Your task to perform on an android device: Show me the alarms in the clock app Image 0: 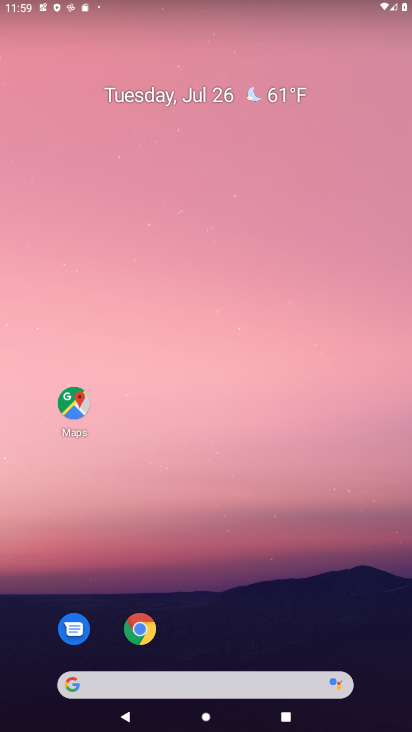
Step 0: drag from (252, 663) to (227, 34)
Your task to perform on an android device: Show me the alarms in the clock app Image 1: 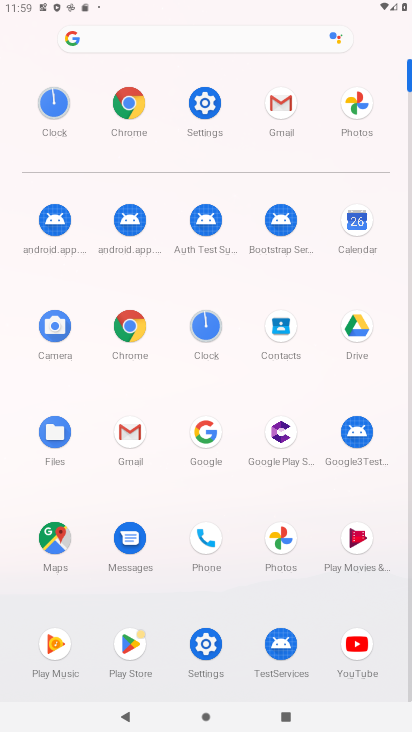
Step 1: click (56, 121)
Your task to perform on an android device: Show me the alarms in the clock app Image 2: 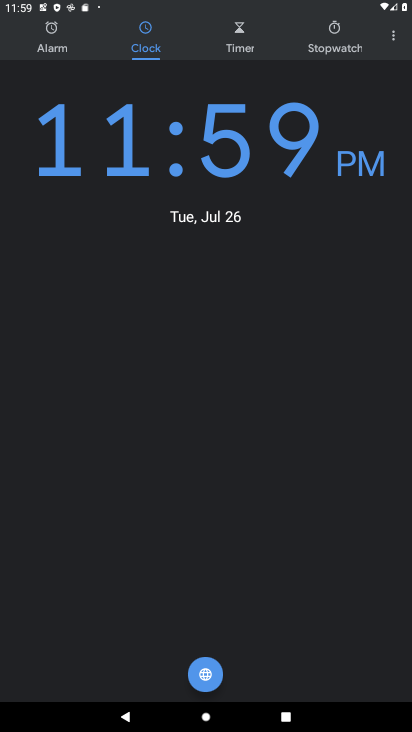
Step 2: click (71, 34)
Your task to perform on an android device: Show me the alarms in the clock app Image 3: 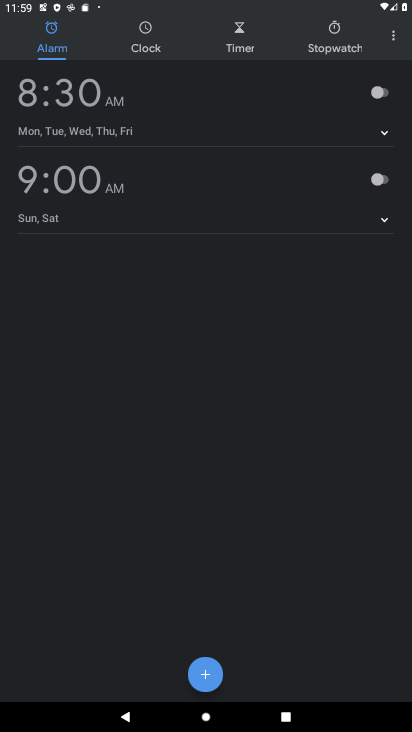
Step 3: click (377, 102)
Your task to perform on an android device: Show me the alarms in the clock app Image 4: 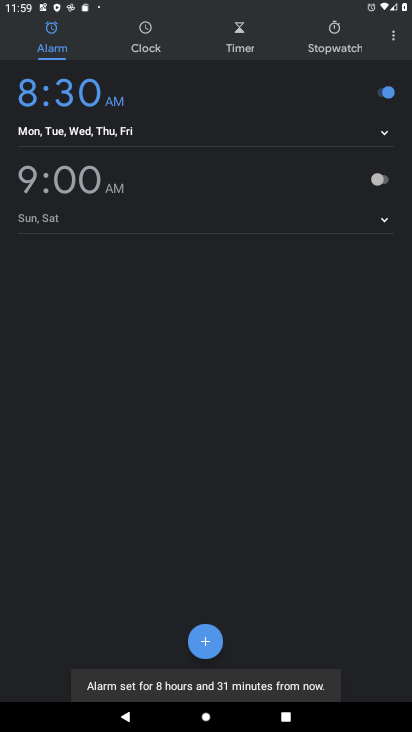
Step 4: task complete